Your task to perform on an android device: open chrome privacy settings Image 0: 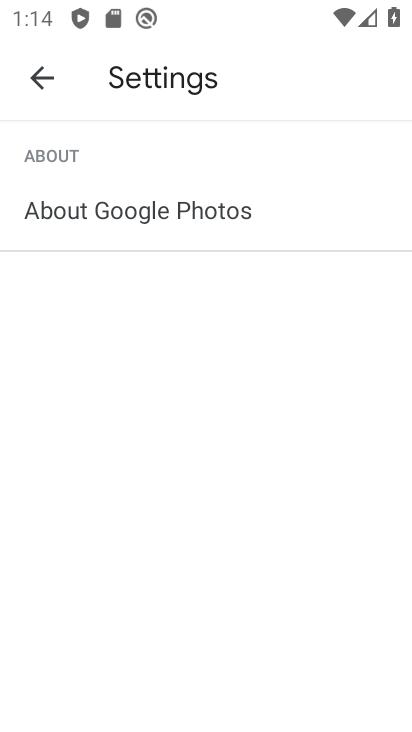
Step 0: press home button
Your task to perform on an android device: open chrome privacy settings Image 1: 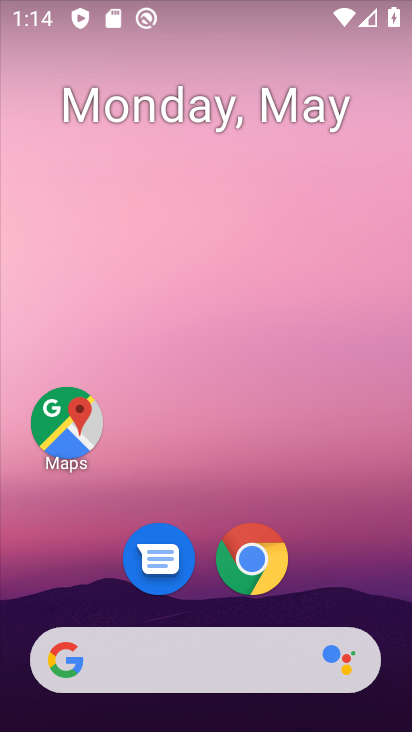
Step 1: drag from (334, 507) to (253, 194)
Your task to perform on an android device: open chrome privacy settings Image 2: 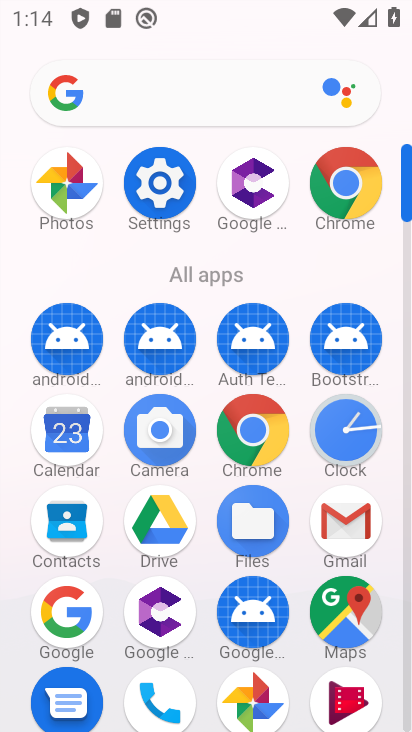
Step 2: click (165, 194)
Your task to perform on an android device: open chrome privacy settings Image 3: 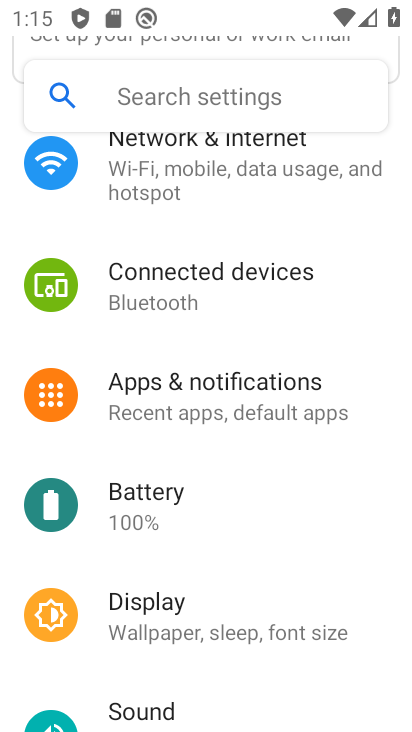
Step 3: drag from (240, 549) to (281, 174)
Your task to perform on an android device: open chrome privacy settings Image 4: 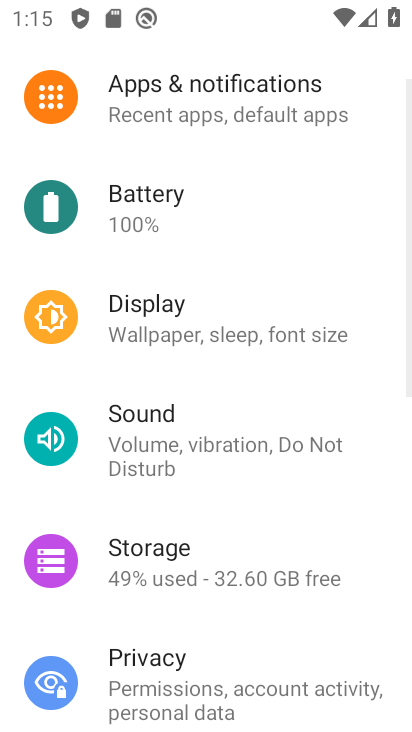
Step 4: drag from (236, 573) to (268, 232)
Your task to perform on an android device: open chrome privacy settings Image 5: 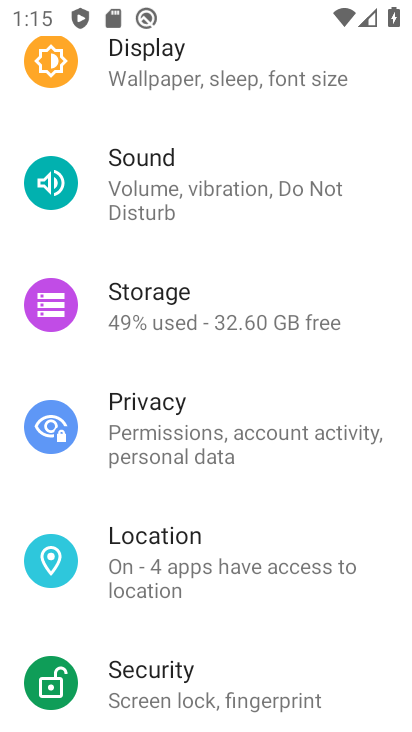
Step 5: click (153, 442)
Your task to perform on an android device: open chrome privacy settings Image 6: 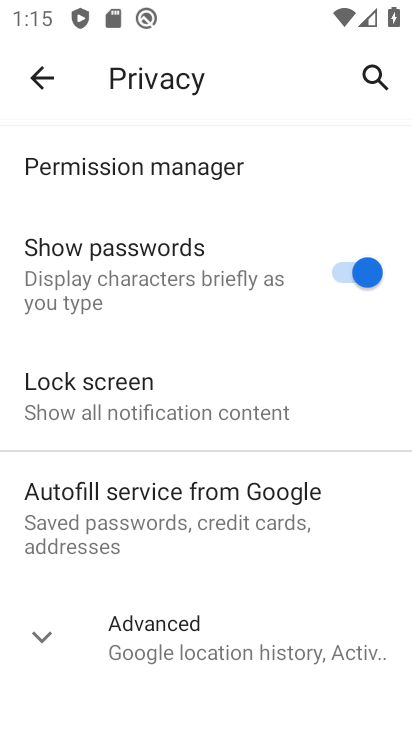
Step 6: click (183, 439)
Your task to perform on an android device: open chrome privacy settings Image 7: 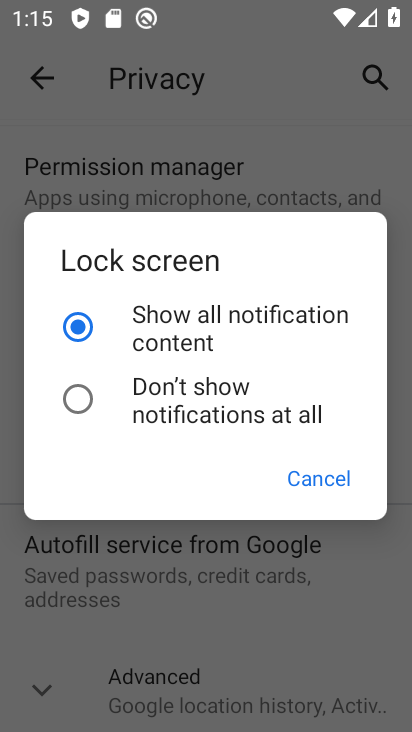
Step 7: click (291, 476)
Your task to perform on an android device: open chrome privacy settings Image 8: 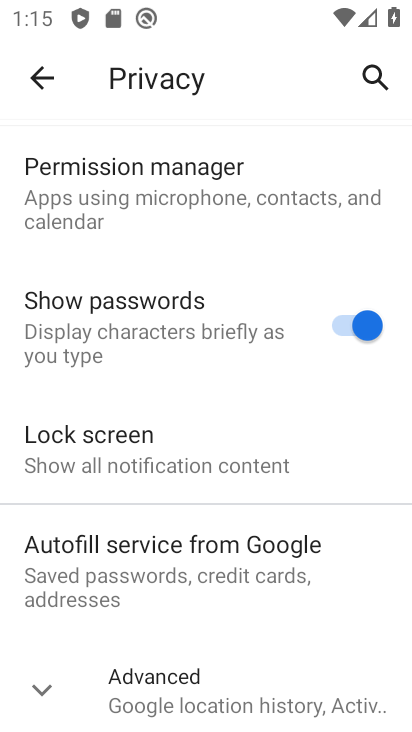
Step 8: task complete